Your task to perform on an android device: toggle show notifications on the lock screen Image 0: 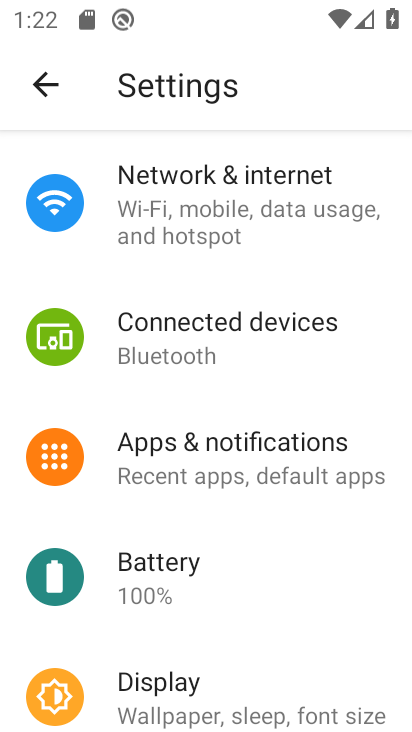
Step 0: press home button
Your task to perform on an android device: toggle show notifications on the lock screen Image 1: 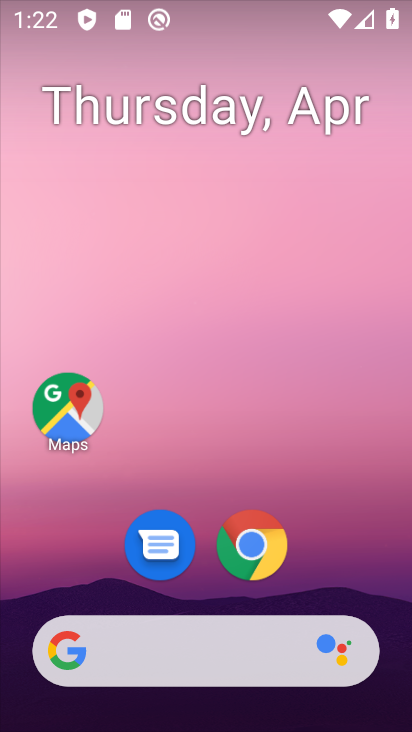
Step 1: drag from (375, 591) to (380, 19)
Your task to perform on an android device: toggle show notifications on the lock screen Image 2: 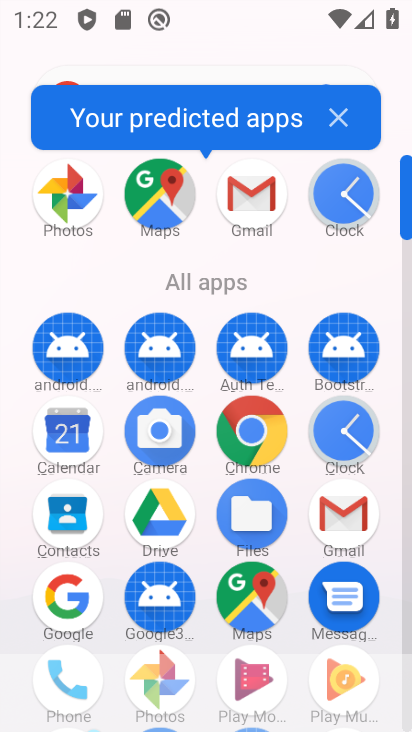
Step 2: click (405, 506)
Your task to perform on an android device: toggle show notifications on the lock screen Image 3: 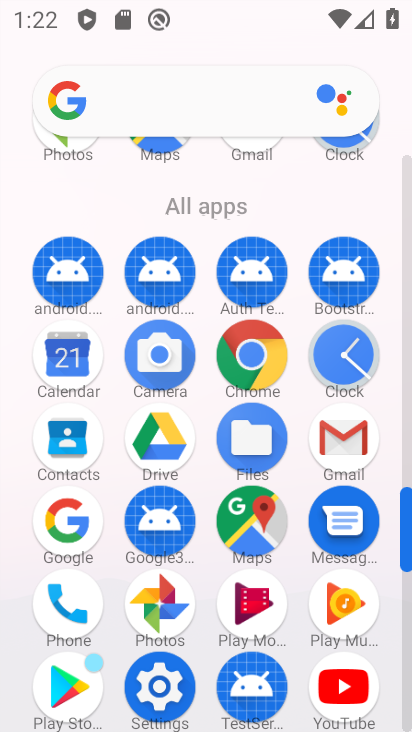
Step 3: click (166, 689)
Your task to perform on an android device: toggle show notifications on the lock screen Image 4: 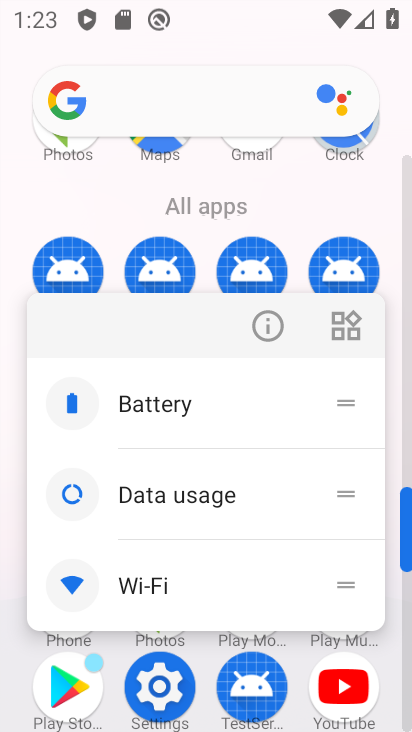
Step 4: click (166, 690)
Your task to perform on an android device: toggle show notifications on the lock screen Image 5: 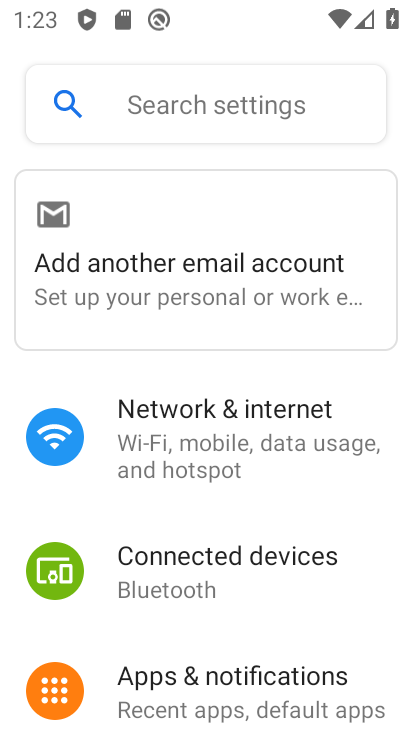
Step 5: click (275, 683)
Your task to perform on an android device: toggle show notifications on the lock screen Image 6: 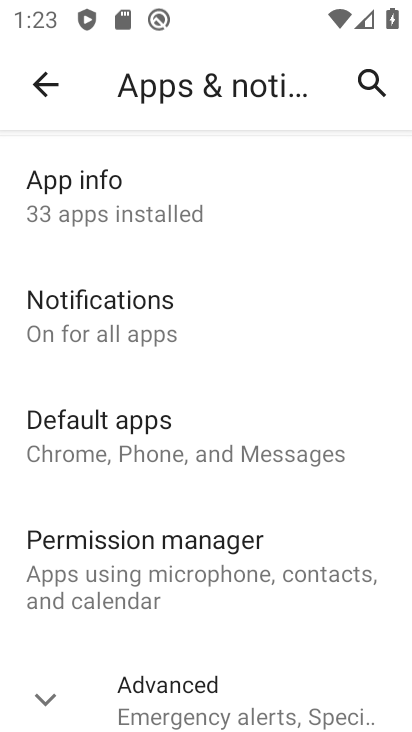
Step 6: drag from (233, 305) to (248, 483)
Your task to perform on an android device: toggle show notifications on the lock screen Image 7: 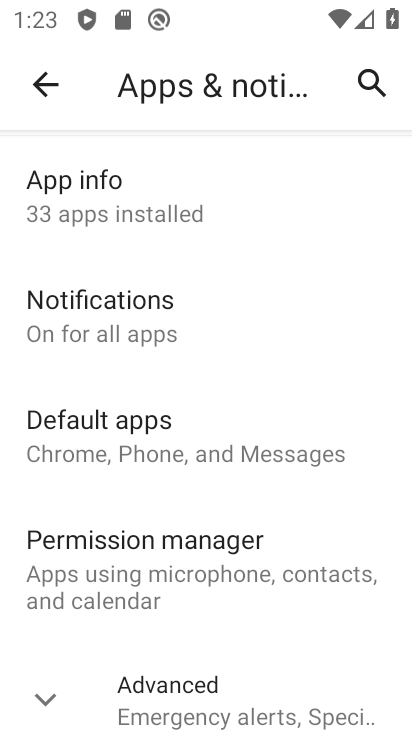
Step 7: click (104, 327)
Your task to perform on an android device: toggle show notifications on the lock screen Image 8: 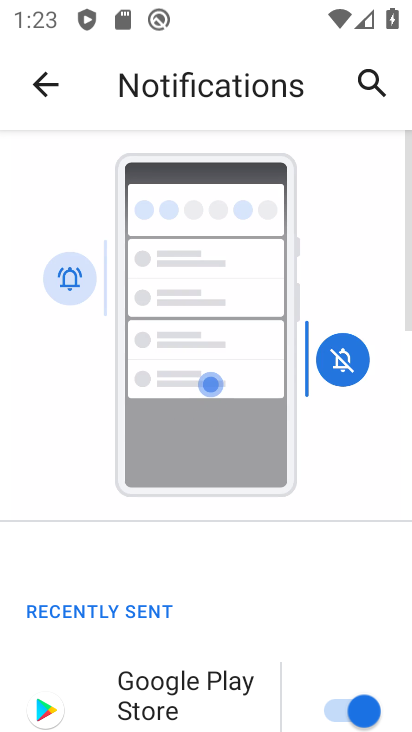
Step 8: drag from (121, 585) to (144, 63)
Your task to perform on an android device: toggle show notifications on the lock screen Image 9: 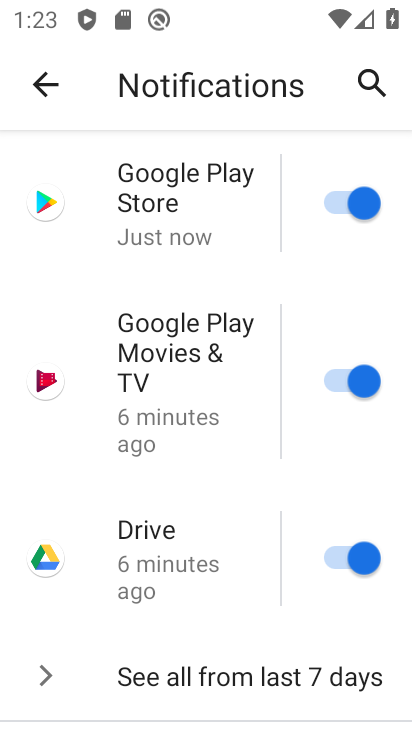
Step 9: drag from (140, 451) to (170, 106)
Your task to perform on an android device: toggle show notifications on the lock screen Image 10: 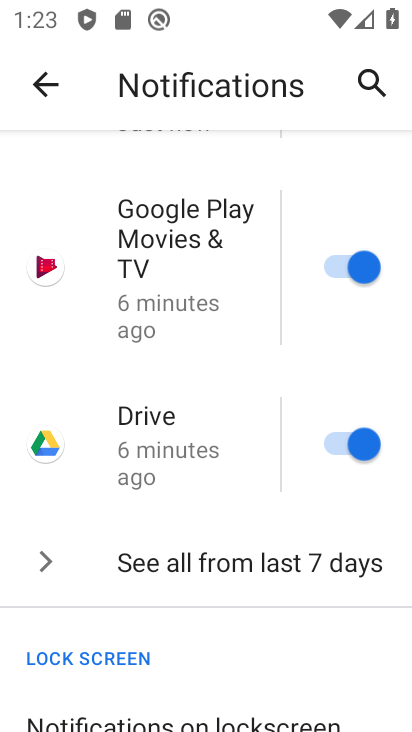
Step 10: drag from (144, 581) to (176, 195)
Your task to perform on an android device: toggle show notifications on the lock screen Image 11: 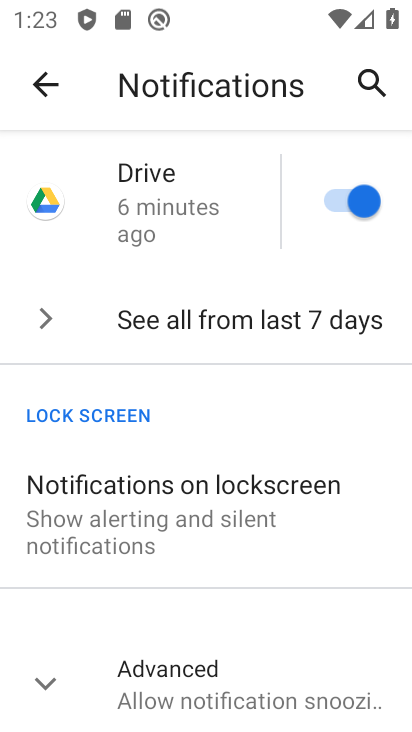
Step 11: click (117, 510)
Your task to perform on an android device: toggle show notifications on the lock screen Image 12: 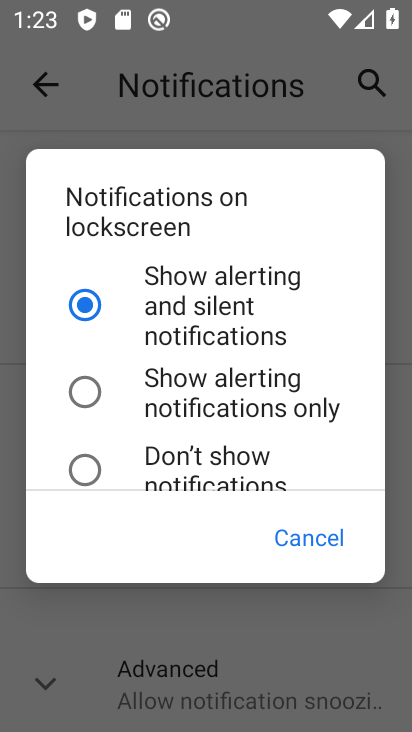
Step 12: click (86, 472)
Your task to perform on an android device: toggle show notifications on the lock screen Image 13: 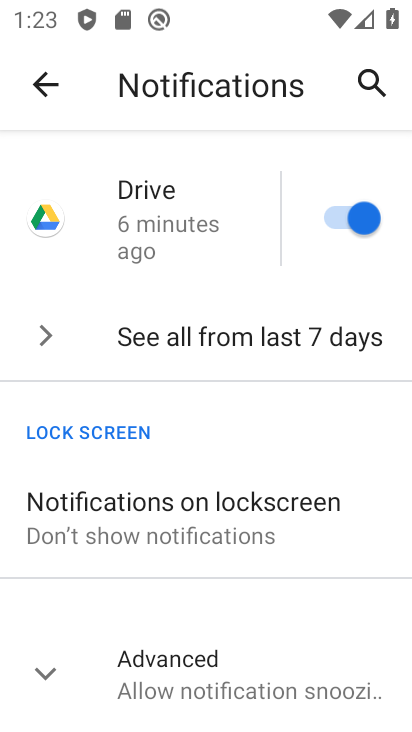
Step 13: task complete